Your task to perform on an android device: open chrome and create a bookmark for the current page Image 0: 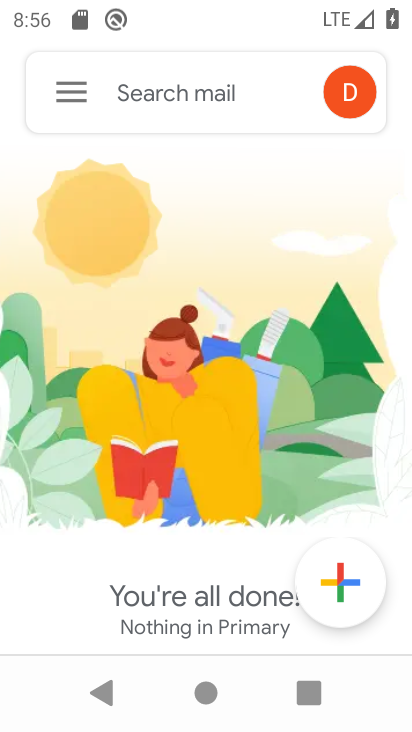
Step 0: press home button
Your task to perform on an android device: open chrome and create a bookmark for the current page Image 1: 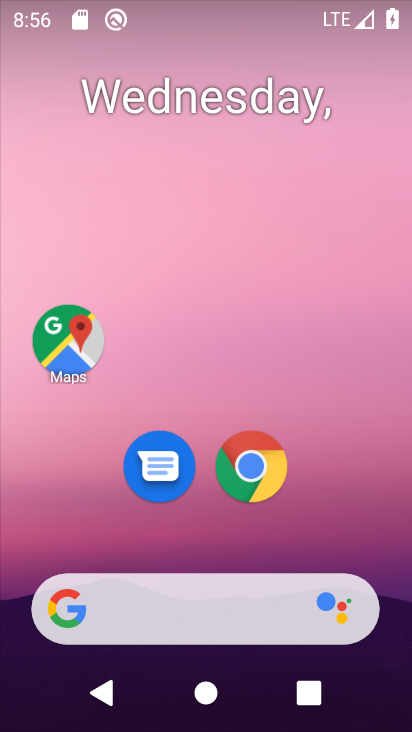
Step 1: click (249, 473)
Your task to perform on an android device: open chrome and create a bookmark for the current page Image 2: 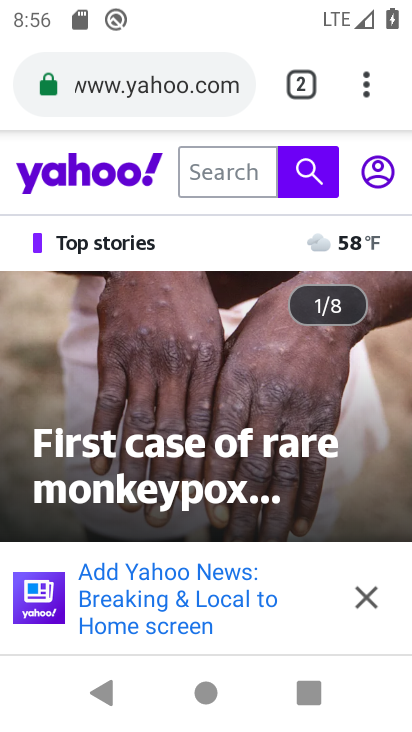
Step 2: click (366, 93)
Your task to perform on an android device: open chrome and create a bookmark for the current page Image 3: 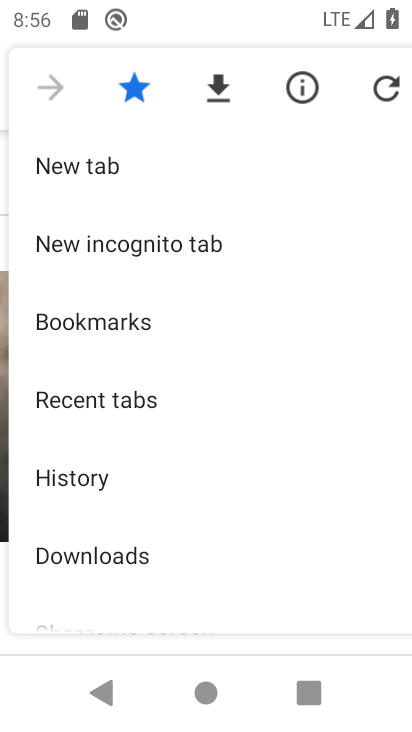
Step 3: task complete